Your task to perform on an android device: Show me popular videos on Youtube Image 0: 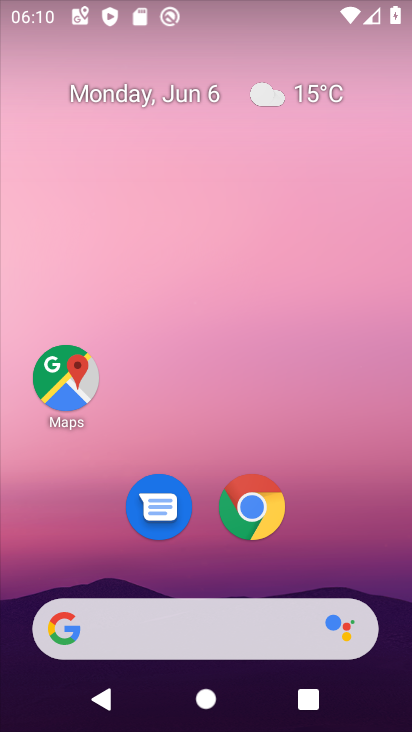
Step 0: drag from (234, 567) to (244, 91)
Your task to perform on an android device: Show me popular videos on Youtube Image 1: 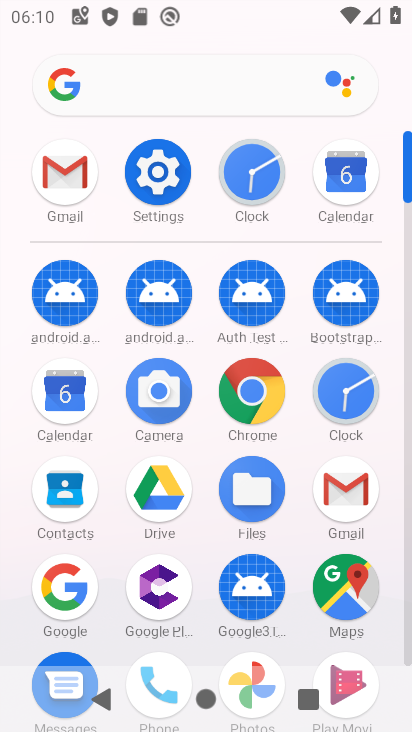
Step 1: drag from (268, 619) to (284, 161)
Your task to perform on an android device: Show me popular videos on Youtube Image 2: 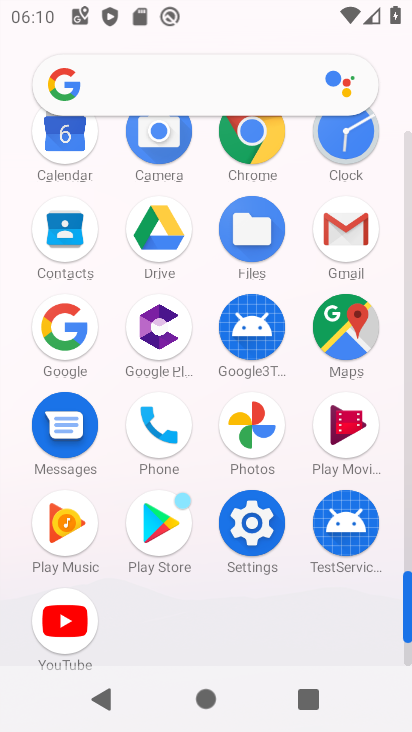
Step 2: click (66, 633)
Your task to perform on an android device: Show me popular videos on Youtube Image 3: 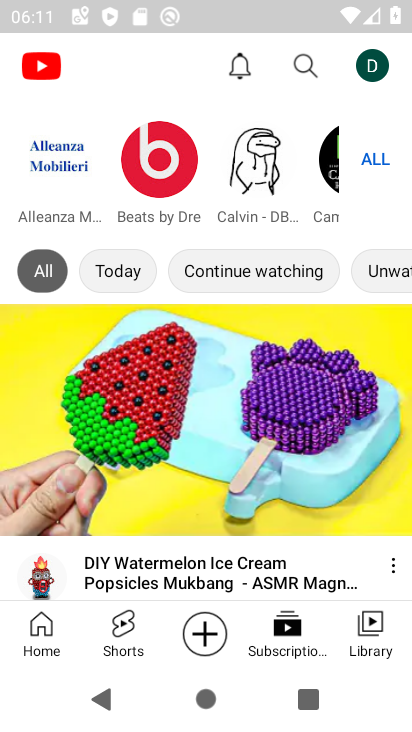
Step 3: task complete